Your task to perform on an android device: manage bookmarks in the chrome app Image 0: 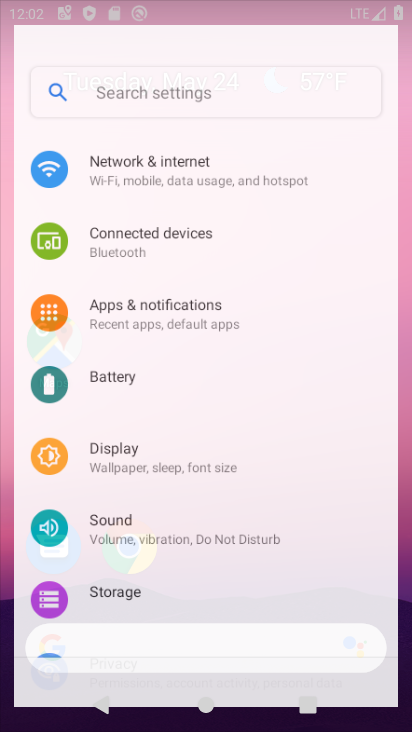
Step 0: drag from (198, 590) to (285, 126)
Your task to perform on an android device: manage bookmarks in the chrome app Image 1: 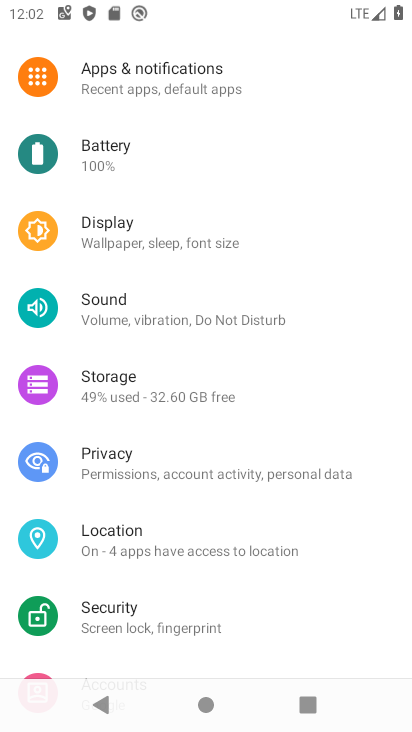
Step 1: press home button
Your task to perform on an android device: manage bookmarks in the chrome app Image 2: 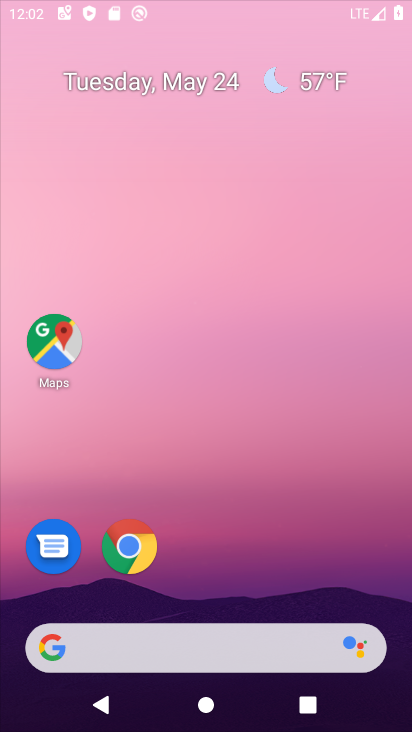
Step 2: drag from (173, 473) to (265, 145)
Your task to perform on an android device: manage bookmarks in the chrome app Image 3: 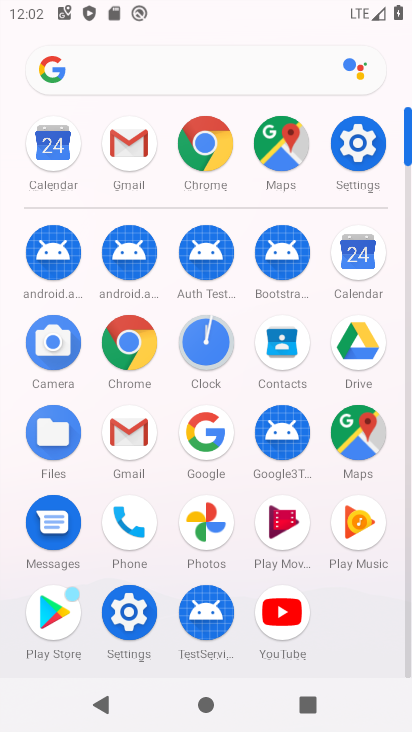
Step 3: click (124, 341)
Your task to perform on an android device: manage bookmarks in the chrome app Image 4: 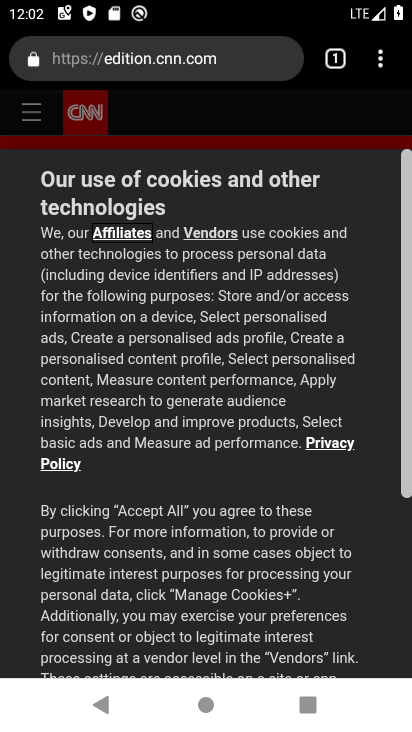
Step 4: click (389, 52)
Your task to perform on an android device: manage bookmarks in the chrome app Image 5: 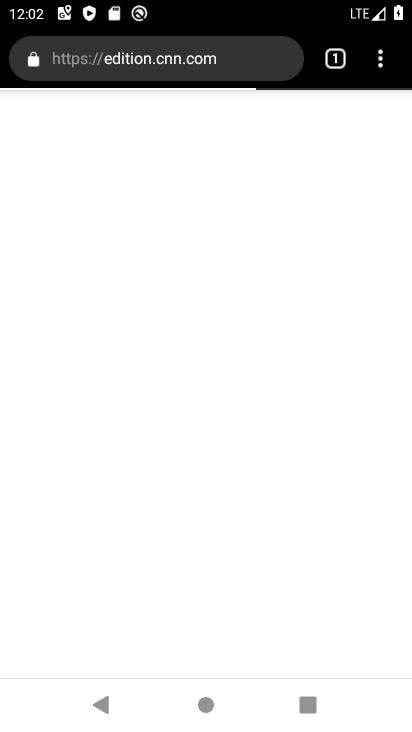
Step 5: click (381, 62)
Your task to perform on an android device: manage bookmarks in the chrome app Image 6: 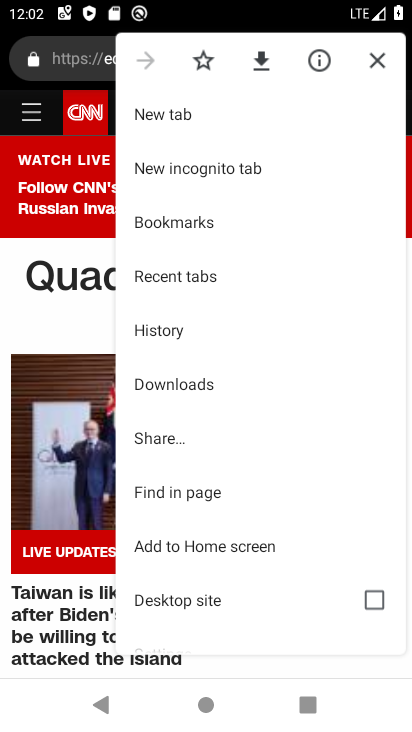
Step 6: click (207, 228)
Your task to perform on an android device: manage bookmarks in the chrome app Image 7: 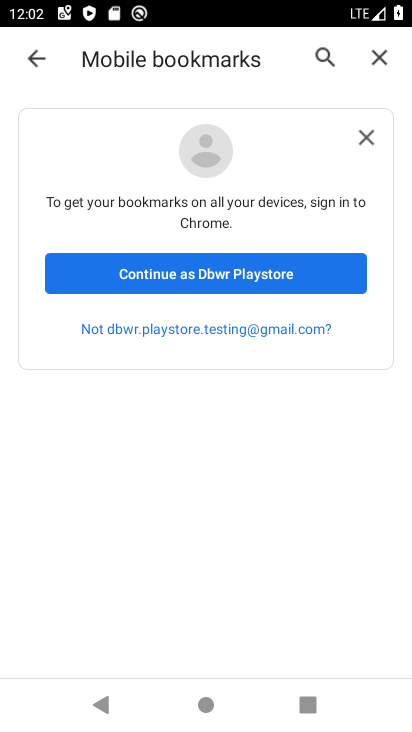
Step 7: task complete